Your task to perform on an android device: Open calendar and show me the second week of next month Image 0: 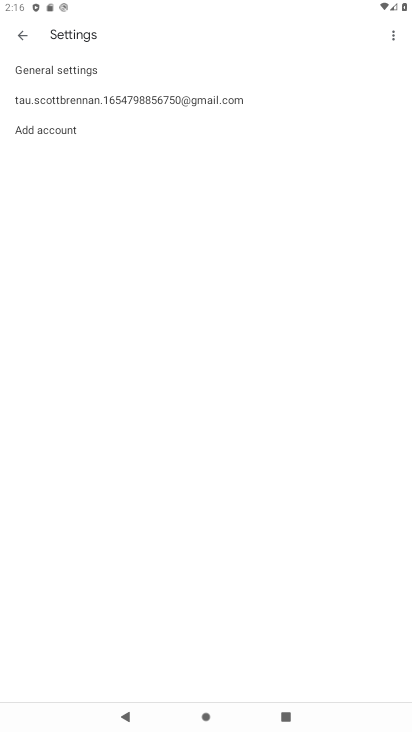
Step 0: press back button
Your task to perform on an android device: Open calendar and show me the second week of next month Image 1: 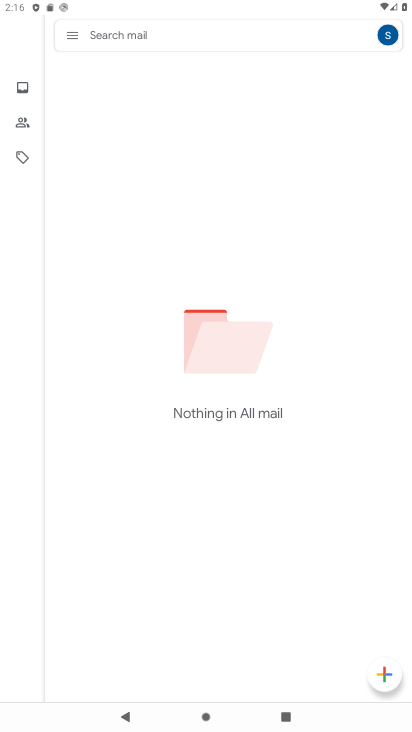
Step 1: press home button
Your task to perform on an android device: Open calendar and show me the second week of next month Image 2: 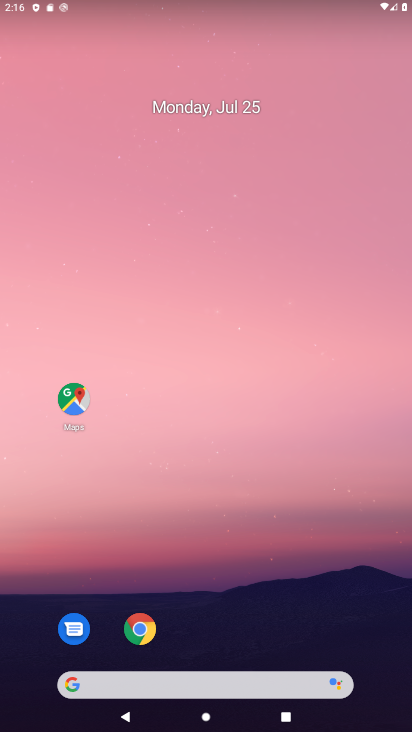
Step 2: drag from (215, 642) to (141, 84)
Your task to perform on an android device: Open calendar and show me the second week of next month Image 3: 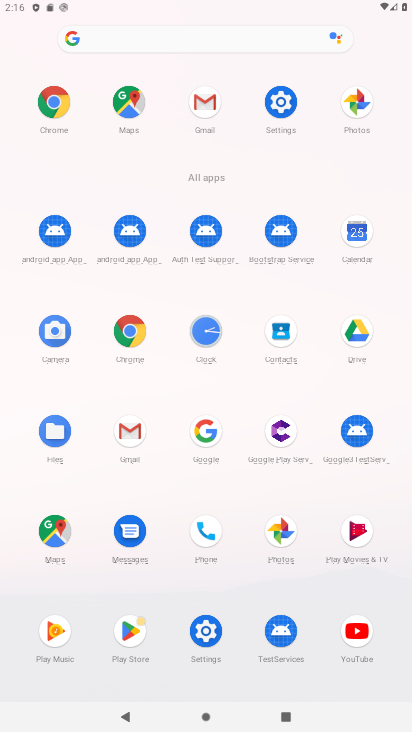
Step 3: click (360, 229)
Your task to perform on an android device: Open calendar and show me the second week of next month Image 4: 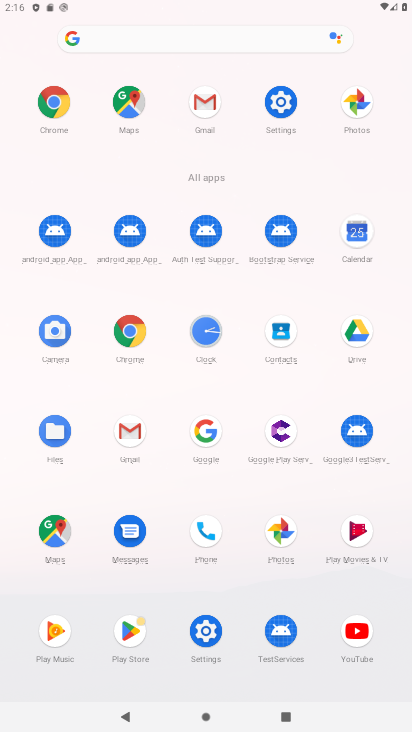
Step 4: click (359, 228)
Your task to perform on an android device: Open calendar and show me the second week of next month Image 5: 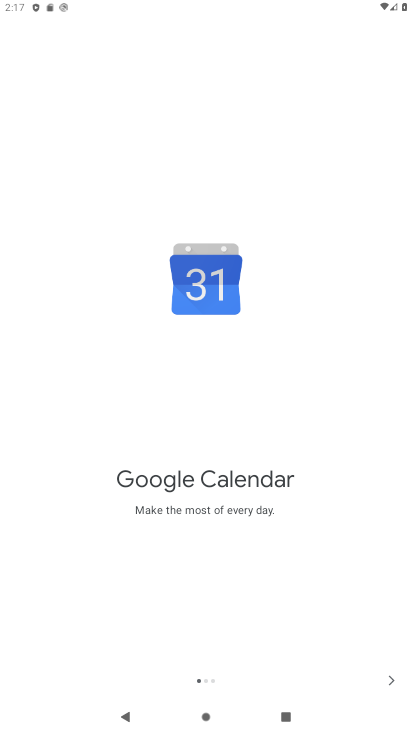
Step 5: click (385, 660)
Your task to perform on an android device: Open calendar and show me the second week of next month Image 6: 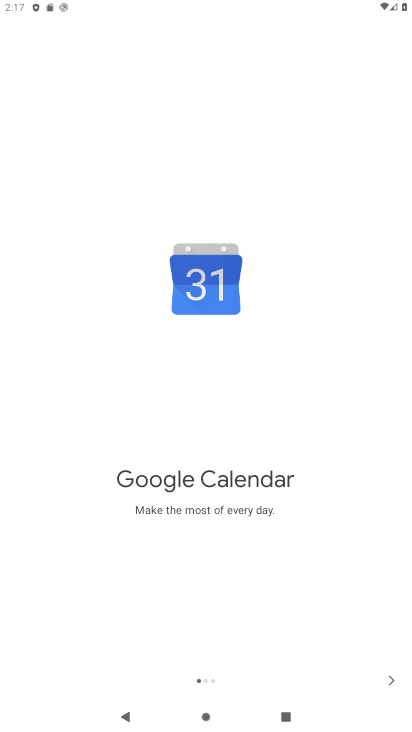
Step 6: click (385, 660)
Your task to perform on an android device: Open calendar and show me the second week of next month Image 7: 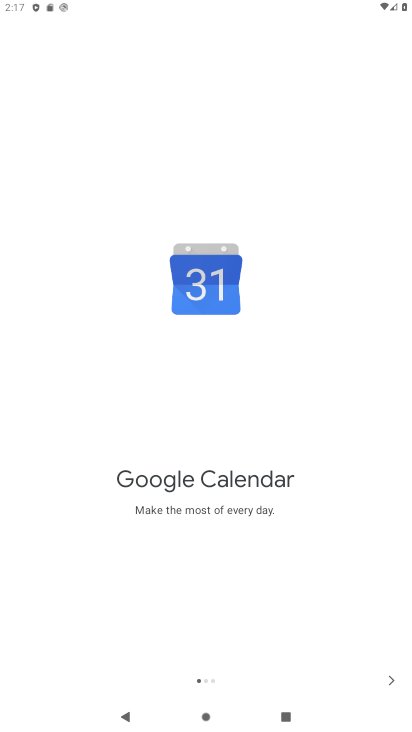
Step 7: click (385, 660)
Your task to perform on an android device: Open calendar and show me the second week of next month Image 8: 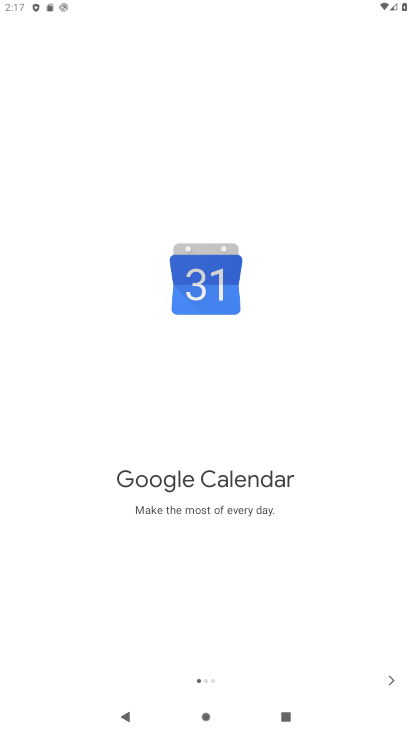
Step 8: click (385, 660)
Your task to perform on an android device: Open calendar and show me the second week of next month Image 9: 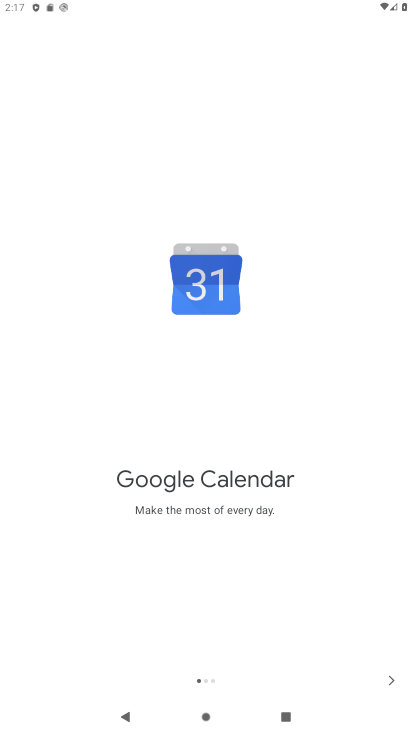
Step 9: click (385, 660)
Your task to perform on an android device: Open calendar and show me the second week of next month Image 10: 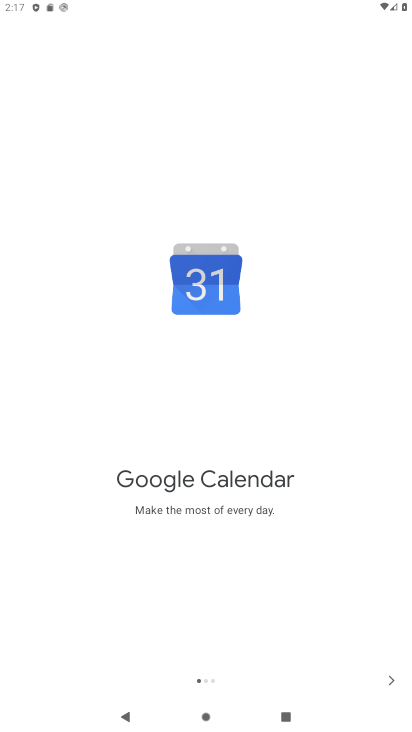
Step 10: click (390, 673)
Your task to perform on an android device: Open calendar and show me the second week of next month Image 11: 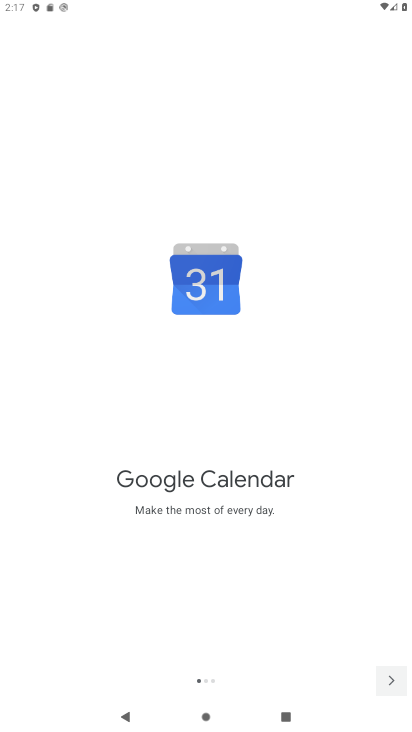
Step 11: click (390, 673)
Your task to perform on an android device: Open calendar and show me the second week of next month Image 12: 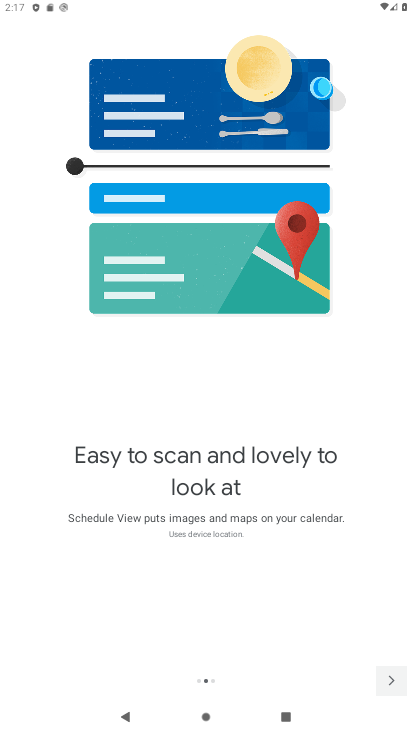
Step 12: click (369, 684)
Your task to perform on an android device: Open calendar and show me the second week of next month Image 13: 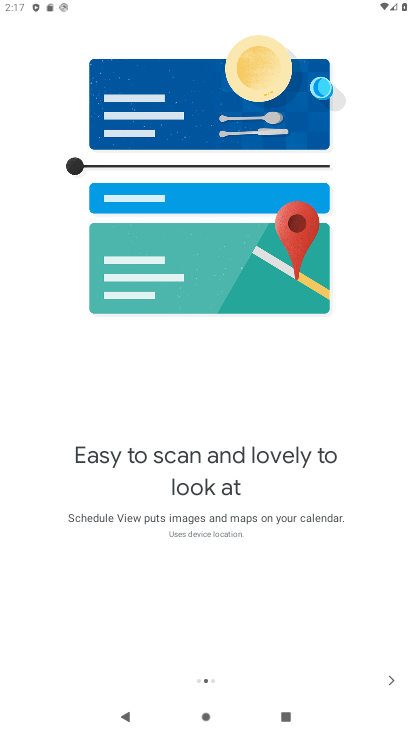
Step 13: click (373, 683)
Your task to perform on an android device: Open calendar and show me the second week of next month Image 14: 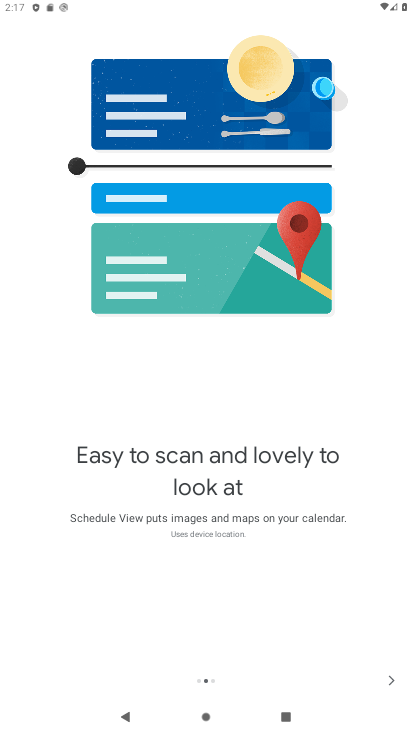
Step 14: click (386, 678)
Your task to perform on an android device: Open calendar and show me the second week of next month Image 15: 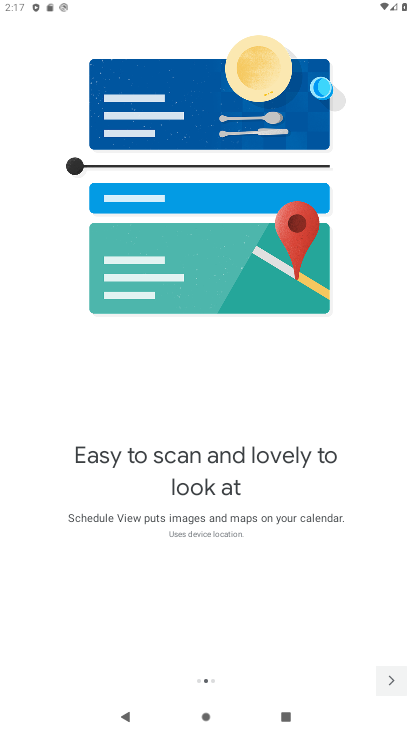
Step 15: click (390, 681)
Your task to perform on an android device: Open calendar and show me the second week of next month Image 16: 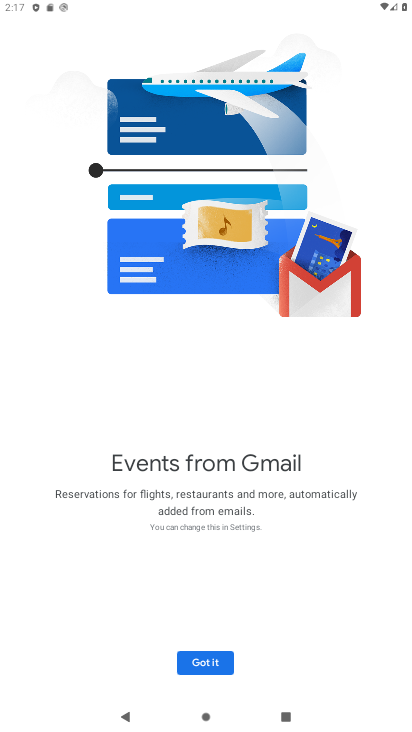
Step 16: click (388, 684)
Your task to perform on an android device: Open calendar and show me the second week of next month Image 17: 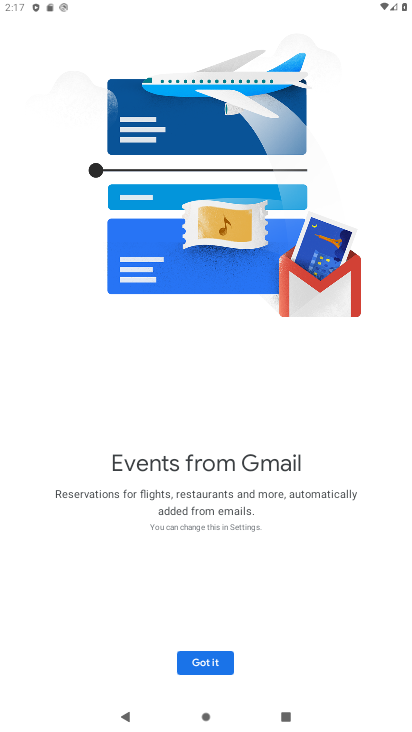
Step 17: click (204, 664)
Your task to perform on an android device: Open calendar and show me the second week of next month Image 18: 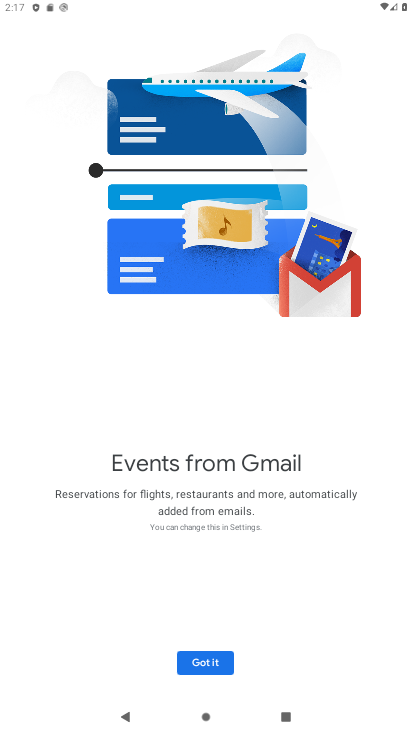
Step 18: click (198, 659)
Your task to perform on an android device: Open calendar and show me the second week of next month Image 19: 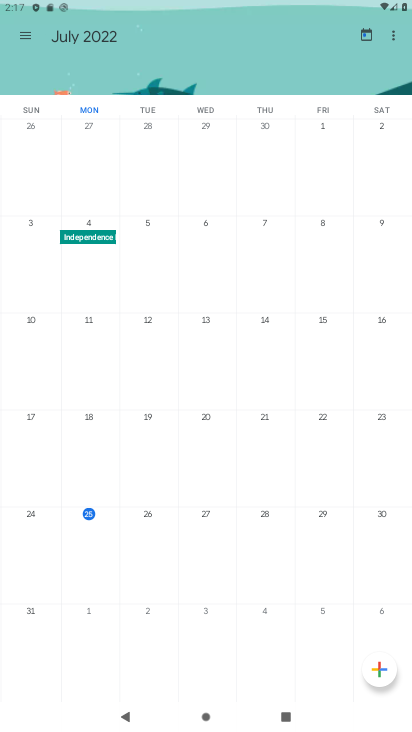
Step 19: drag from (349, 370) to (139, 453)
Your task to perform on an android device: Open calendar and show me the second week of next month Image 20: 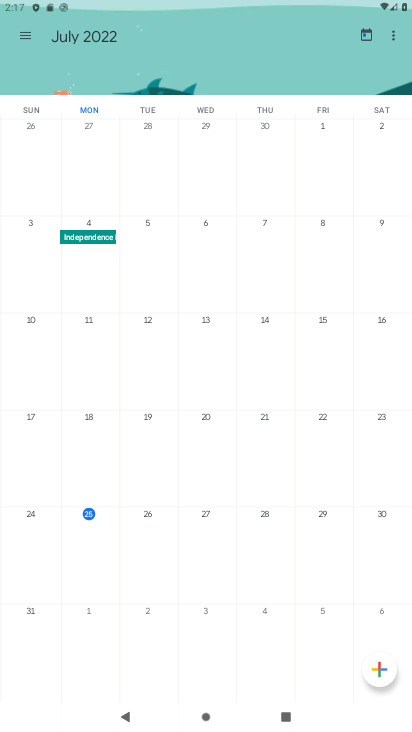
Step 20: drag from (403, 421) to (36, 388)
Your task to perform on an android device: Open calendar and show me the second week of next month Image 21: 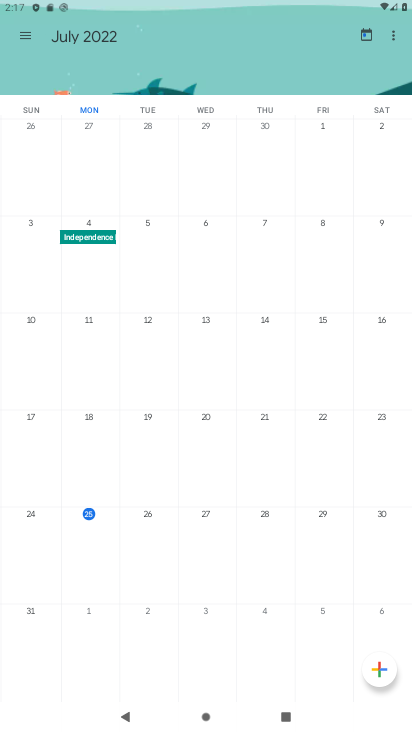
Step 21: drag from (331, 392) to (6, 344)
Your task to perform on an android device: Open calendar and show me the second week of next month Image 22: 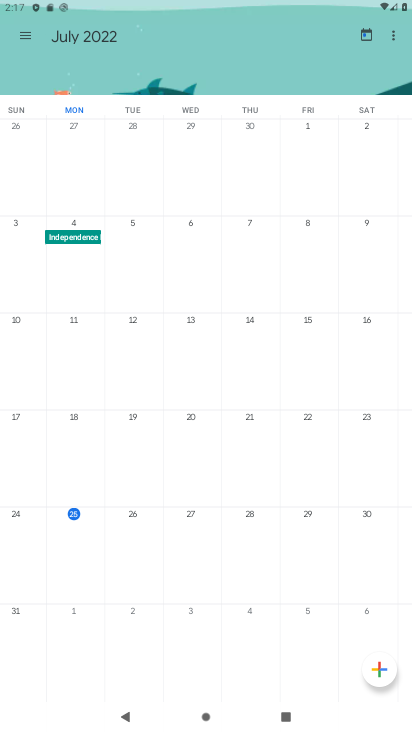
Step 22: drag from (6, 296) to (135, 304)
Your task to perform on an android device: Open calendar and show me the second week of next month Image 23: 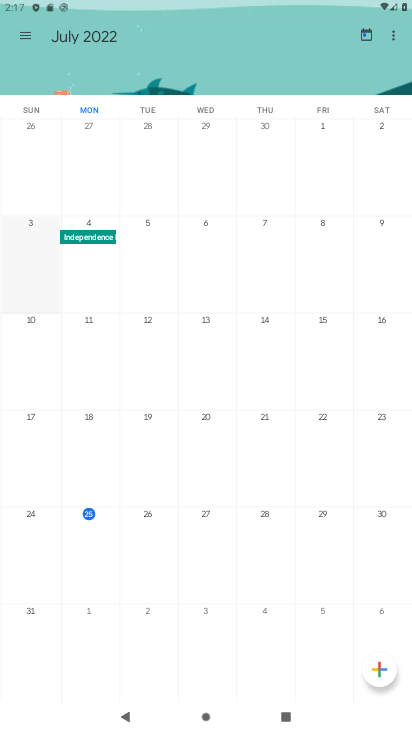
Step 23: click (24, 268)
Your task to perform on an android device: Open calendar and show me the second week of next month Image 24: 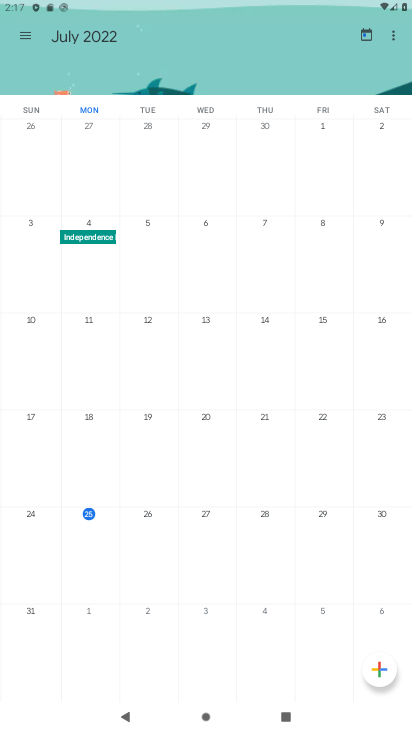
Step 24: click (32, 348)
Your task to perform on an android device: Open calendar and show me the second week of next month Image 25: 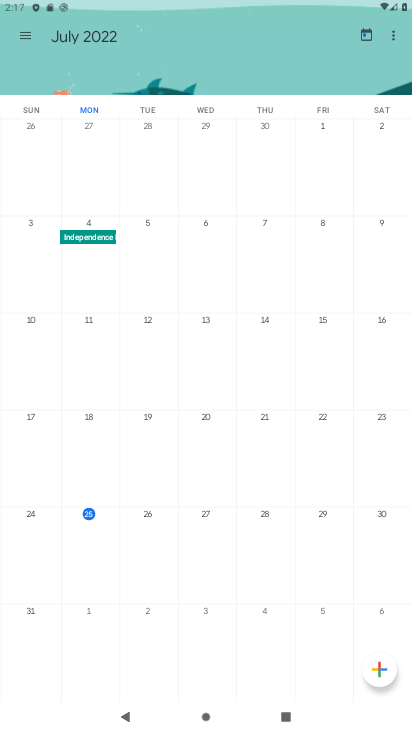
Step 25: drag from (212, 354) to (82, 348)
Your task to perform on an android device: Open calendar and show me the second week of next month Image 26: 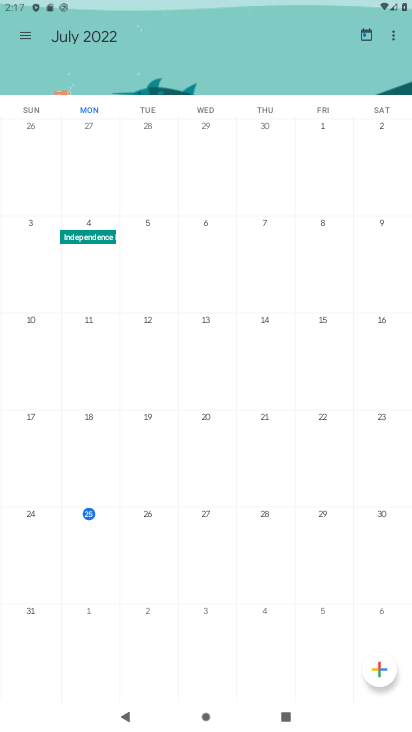
Step 26: drag from (349, 349) to (68, 332)
Your task to perform on an android device: Open calendar and show me the second week of next month Image 27: 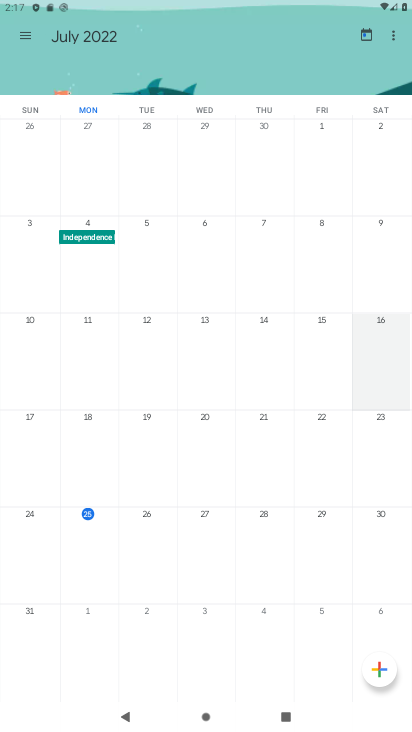
Step 27: drag from (321, 343) to (5, 342)
Your task to perform on an android device: Open calendar and show me the second week of next month Image 28: 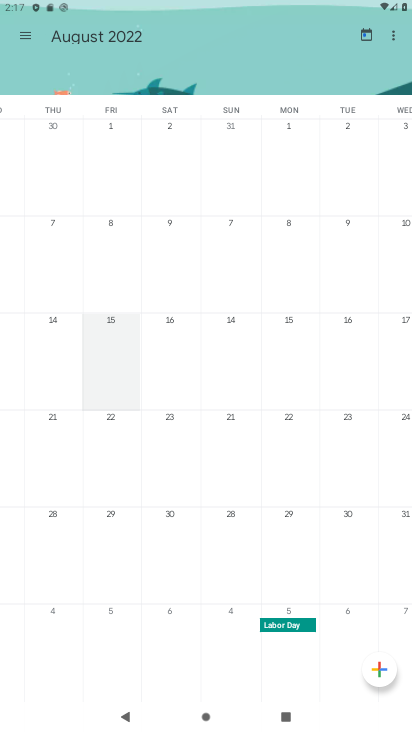
Step 28: drag from (406, 342) to (43, 306)
Your task to perform on an android device: Open calendar and show me the second week of next month Image 29: 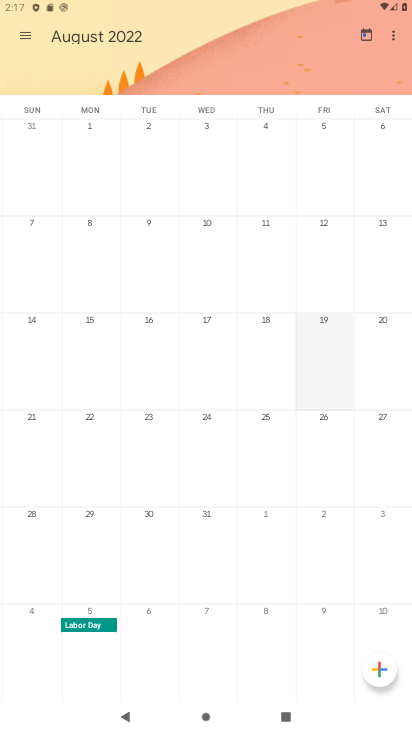
Step 29: drag from (311, 306) to (49, 360)
Your task to perform on an android device: Open calendar and show me the second week of next month Image 30: 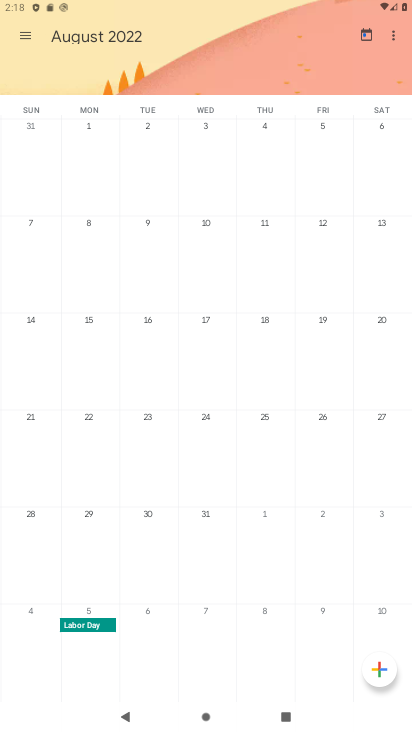
Step 30: click (142, 219)
Your task to perform on an android device: Open calendar and show me the second week of next month Image 31: 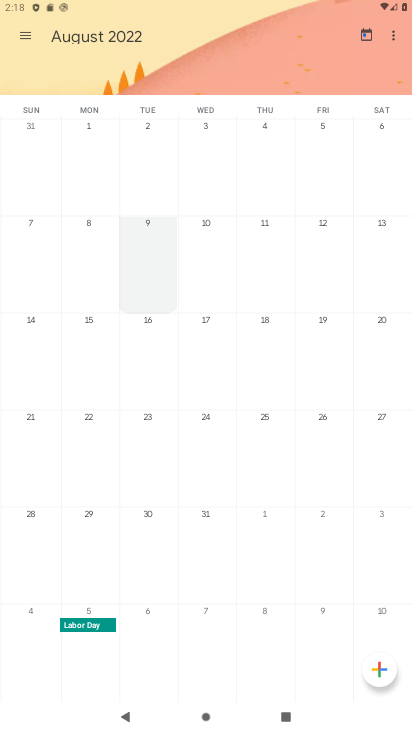
Step 31: click (143, 219)
Your task to perform on an android device: Open calendar and show me the second week of next month Image 32: 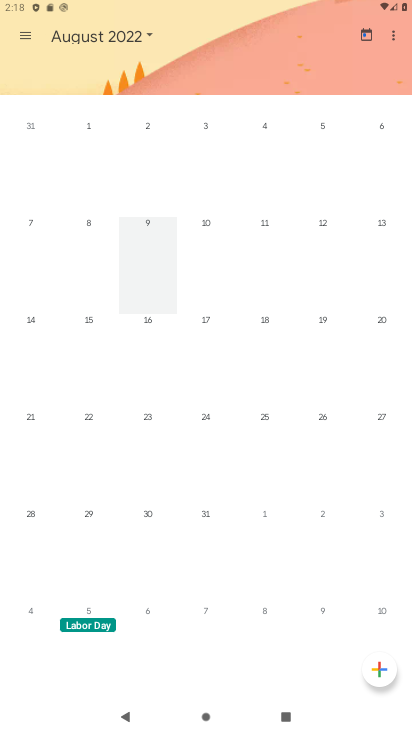
Step 32: click (145, 217)
Your task to perform on an android device: Open calendar and show me the second week of next month Image 33: 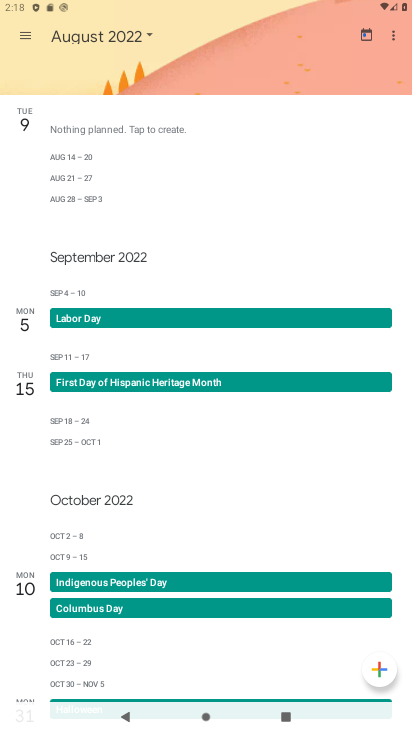
Step 33: task complete